Your task to perform on an android device: Find coffee shops on Maps Image 0: 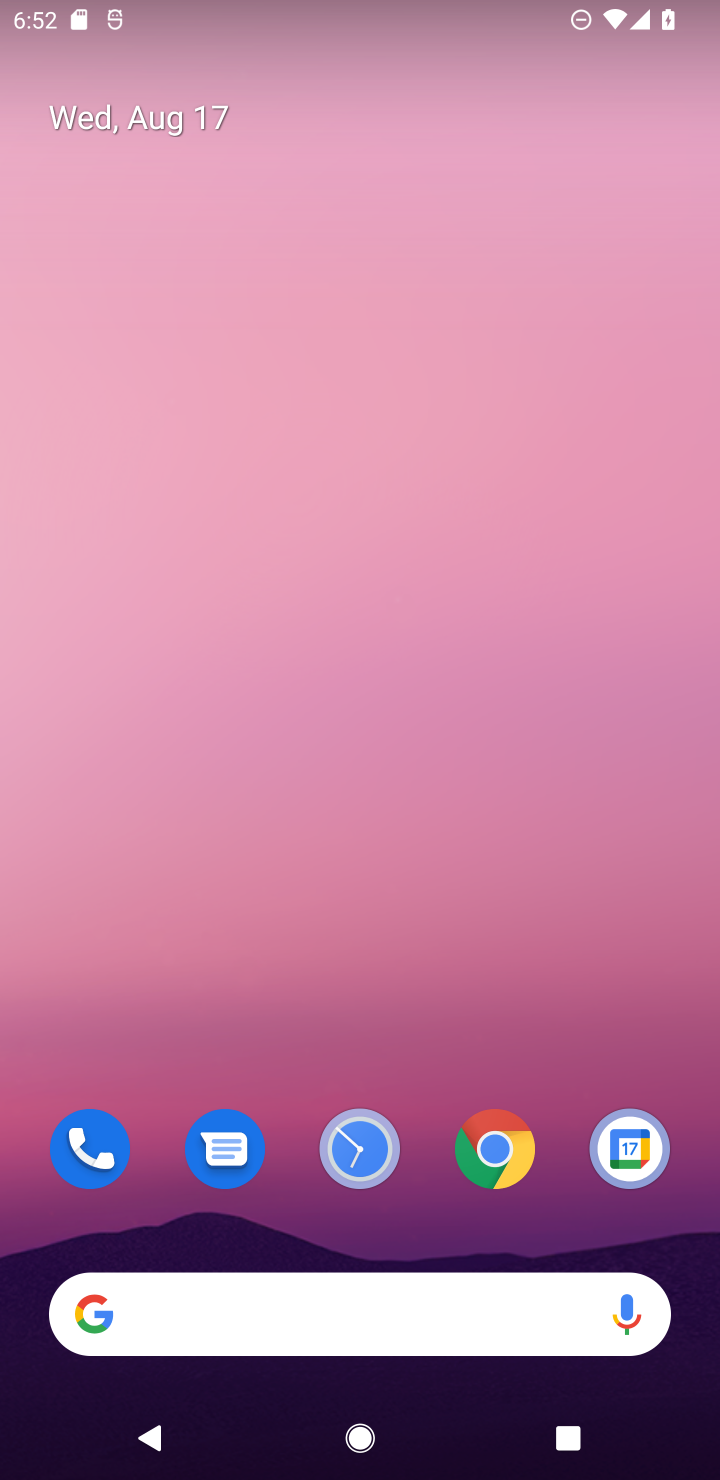
Step 0: drag from (427, 592) to (352, 107)
Your task to perform on an android device: Find coffee shops on Maps Image 1: 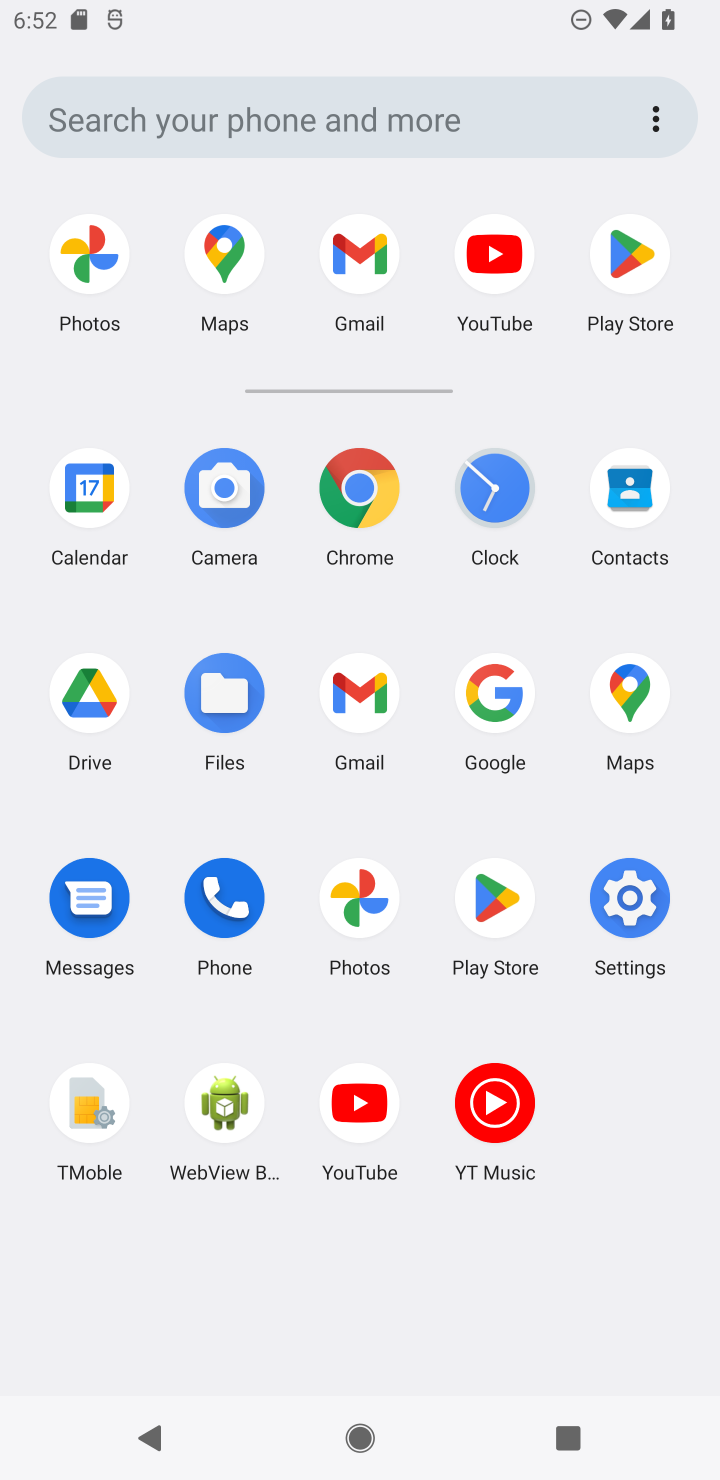
Step 1: click (632, 675)
Your task to perform on an android device: Find coffee shops on Maps Image 2: 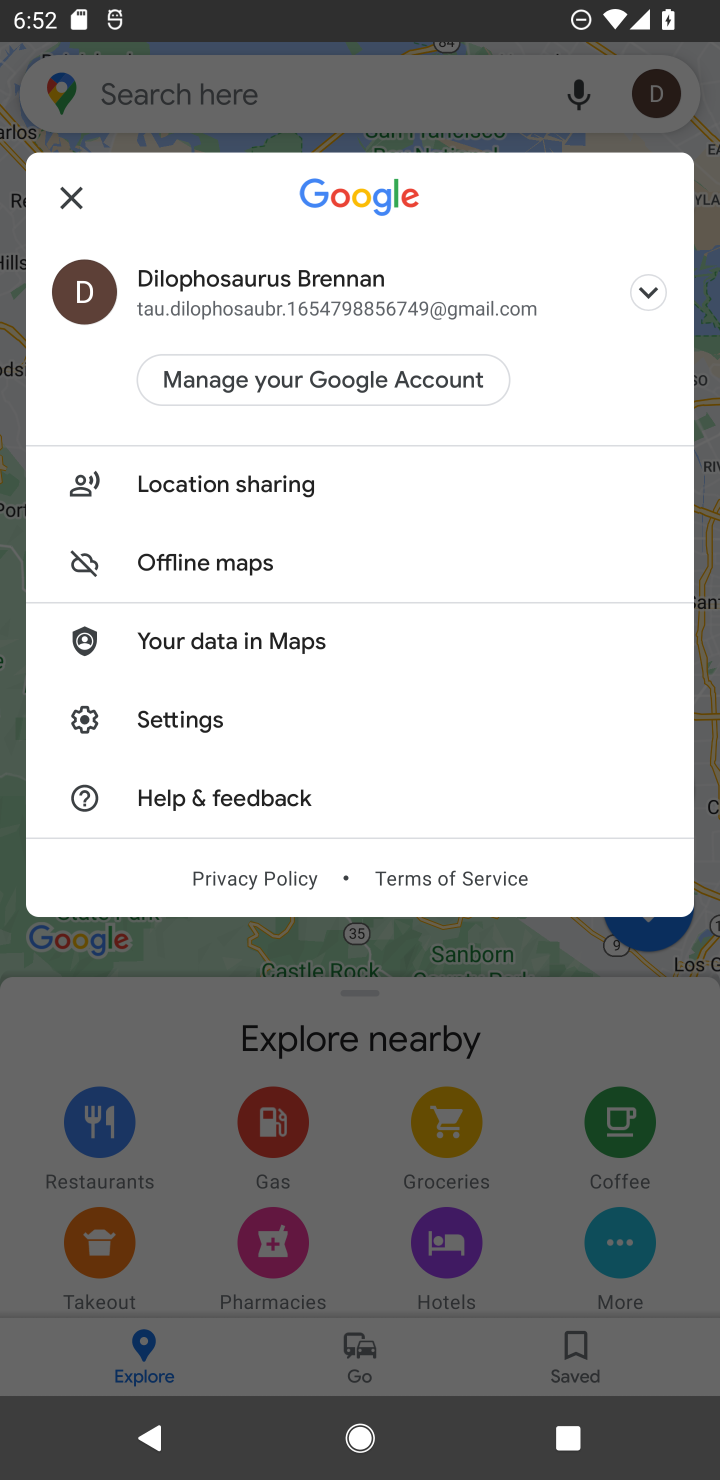
Step 2: click (63, 179)
Your task to perform on an android device: Find coffee shops on Maps Image 3: 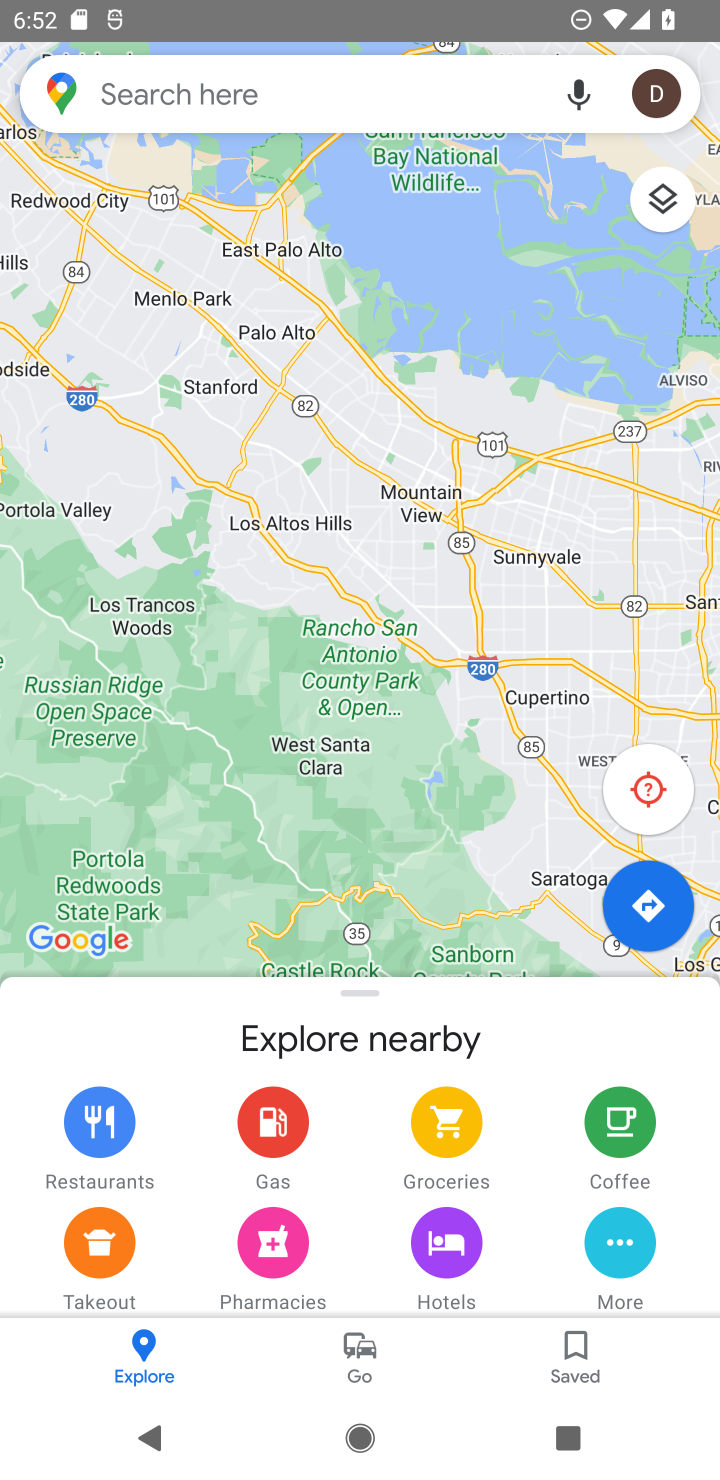
Step 3: click (175, 99)
Your task to perform on an android device: Find coffee shops on Maps Image 4: 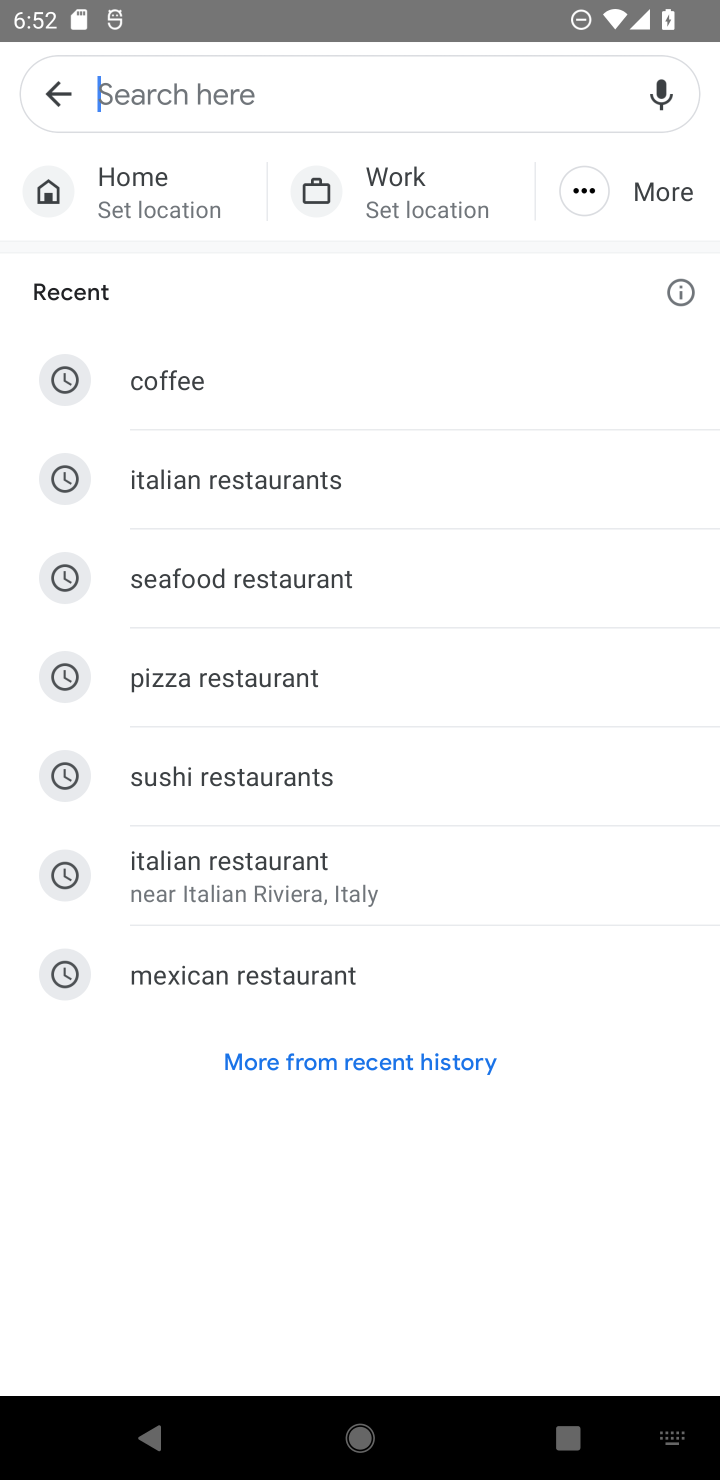
Step 4: click (154, 379)
Your task to perform on an android device: Find coffee shops on Maps Image 5: 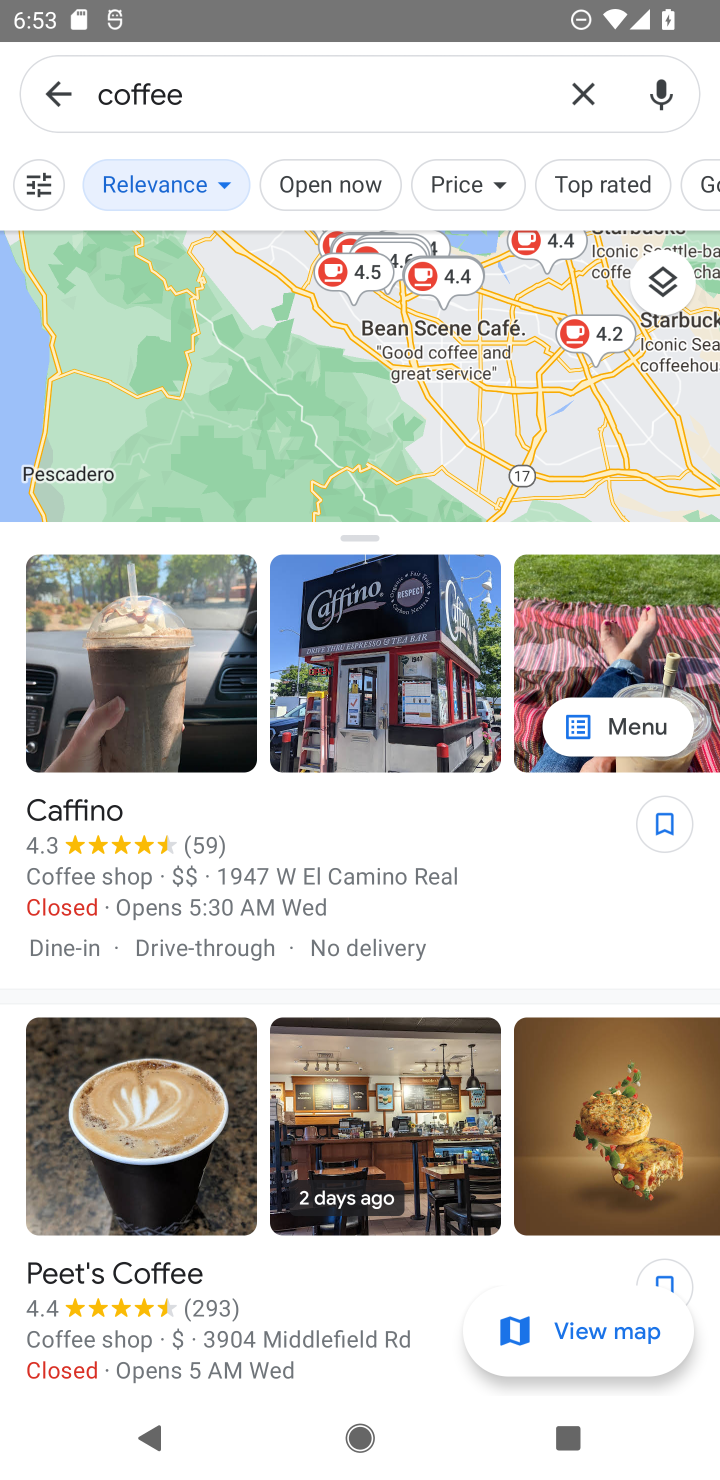
Step 5: task complete